Your task to perform on an android device: open app "YouTube Kids" Image 0: 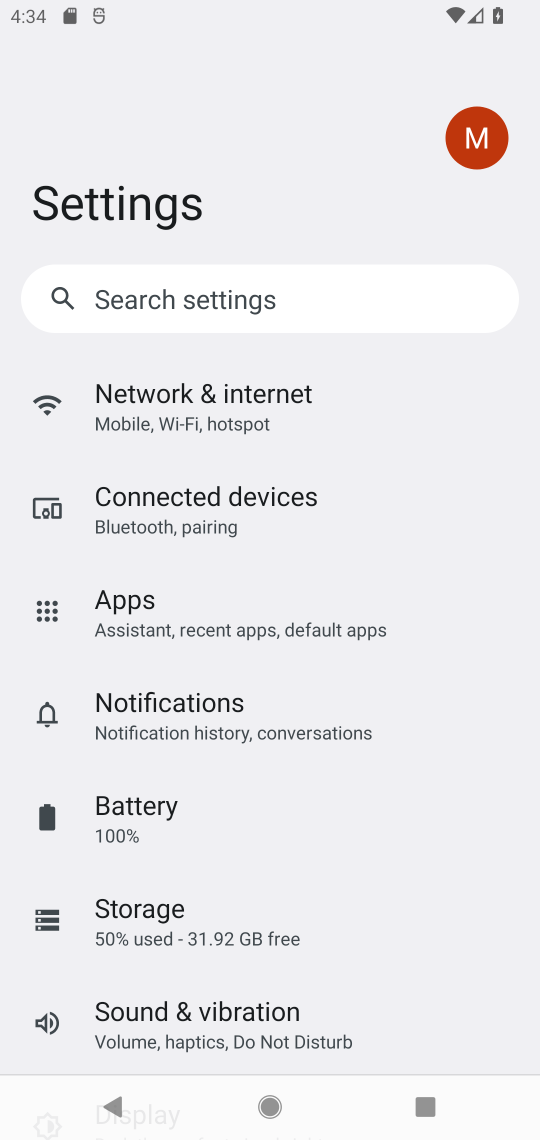
Step 0: press home button
Your task to perform on an android device: open app "YouTube Kids" Image 1: 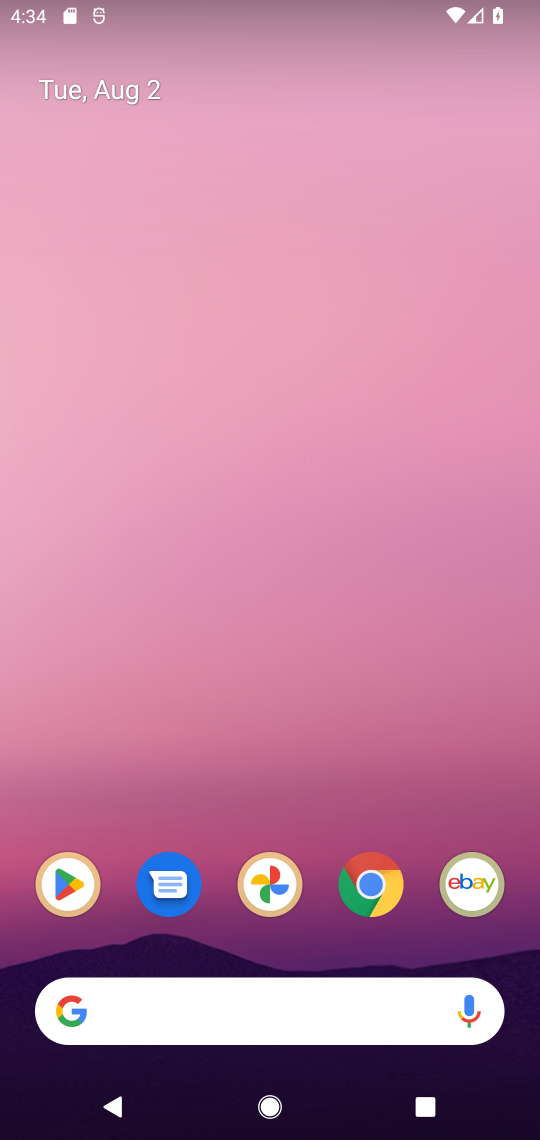
Step 1: click (51, 891)
Your task to perform on an android device: open app "YouTube Kids" Image 2: 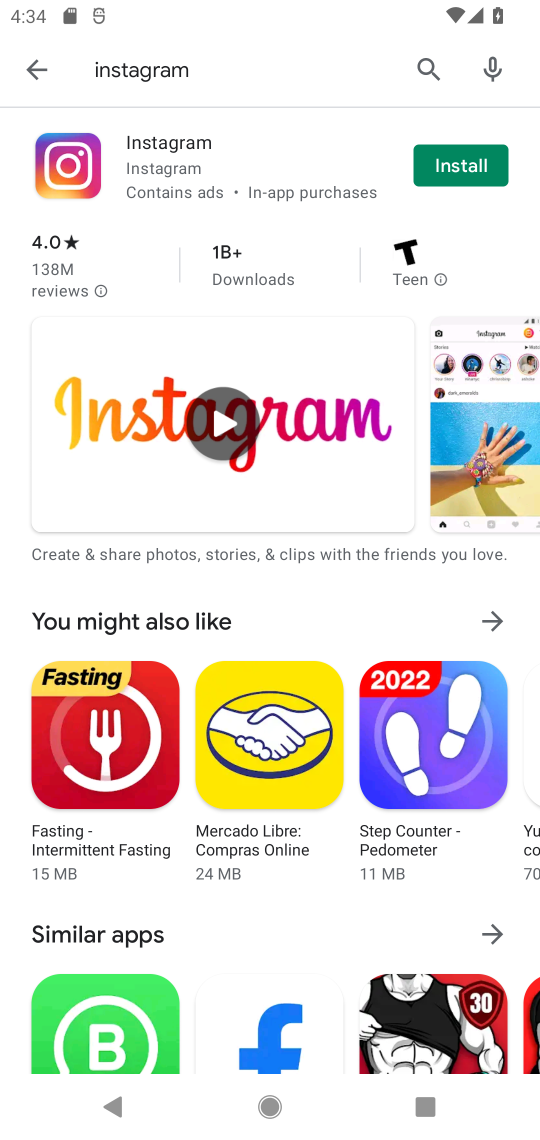
Step 2: click (431, 74)
Your task to perform on an android device: open app "YouTube Kids" Image 3: 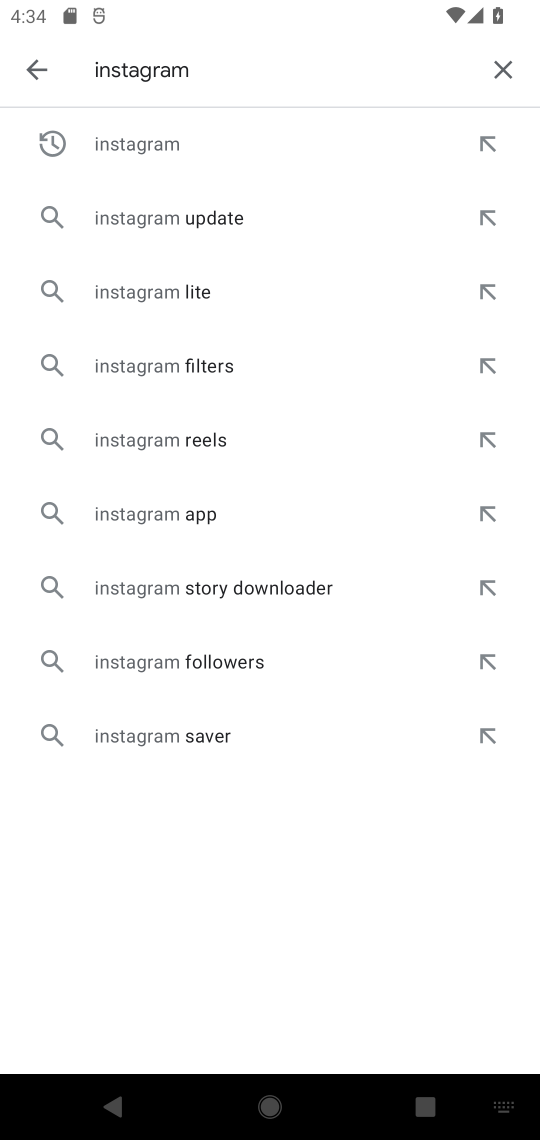
Step 3: click (507, 64)
Your task to perform on an android device: open app "YouTube Kids" Image 4: 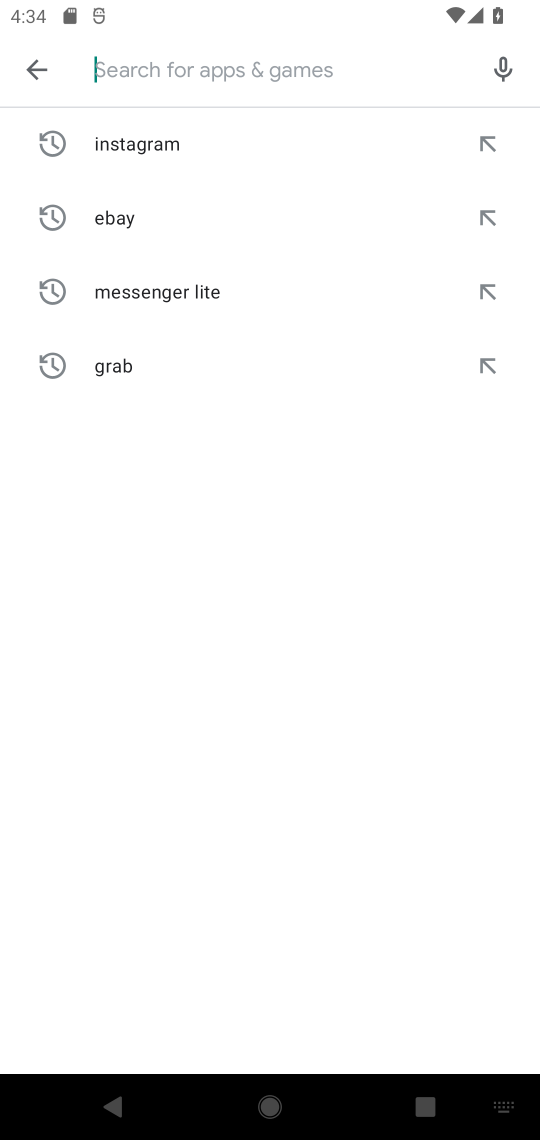
Step 4: type "YouTube Kids"
Your task to perform on an android device: open app "YouTube Kids" Image 5: 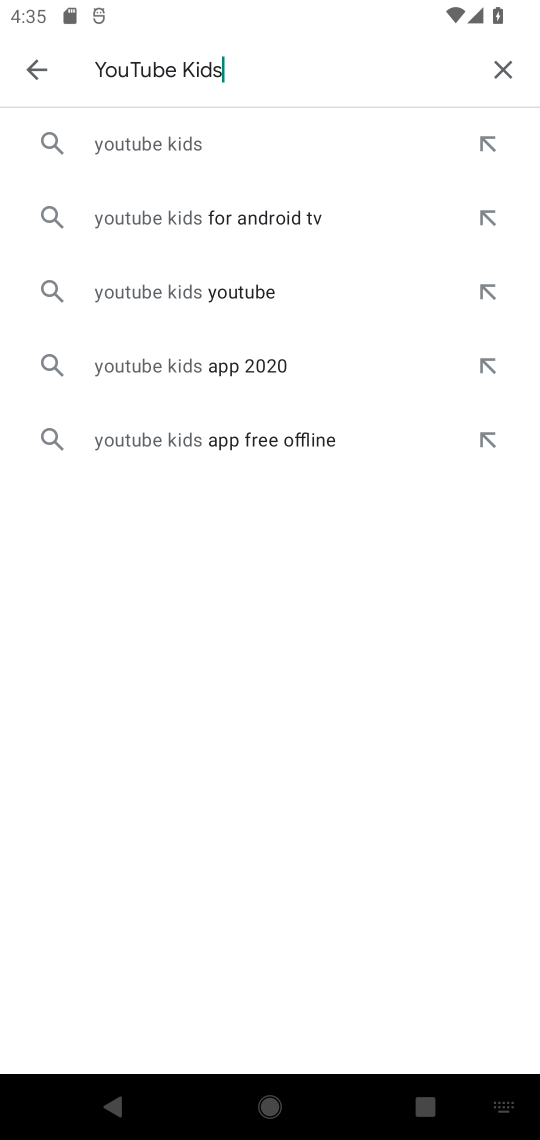
Step 5: click (230, 148)
Your task to perform on an android device: open app "YouTube Kids" Image 6: 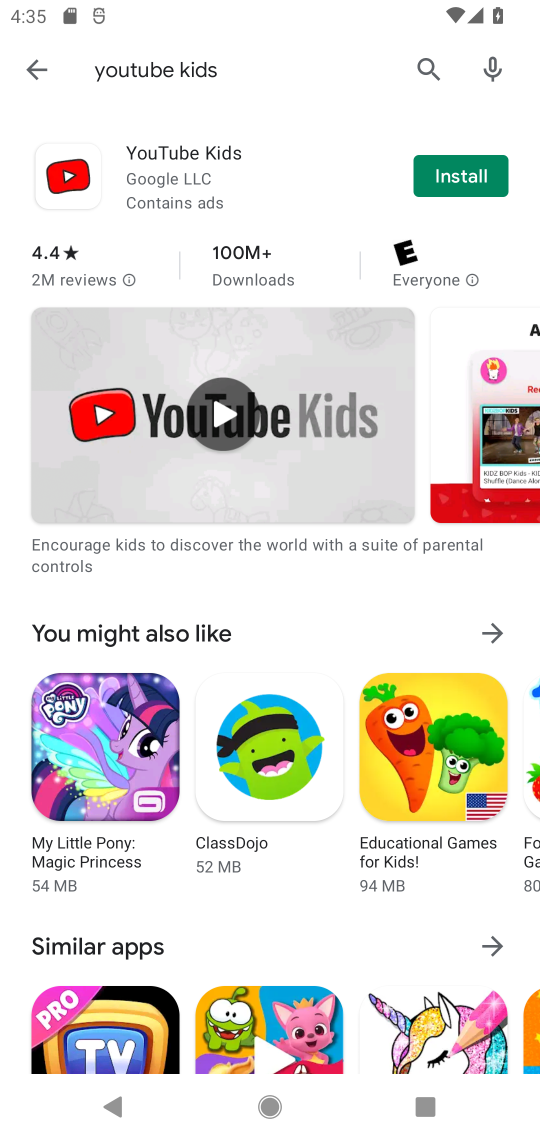
Step 6: task complete